Your task to perform on an android device: open sync settings in chrome Image 0: 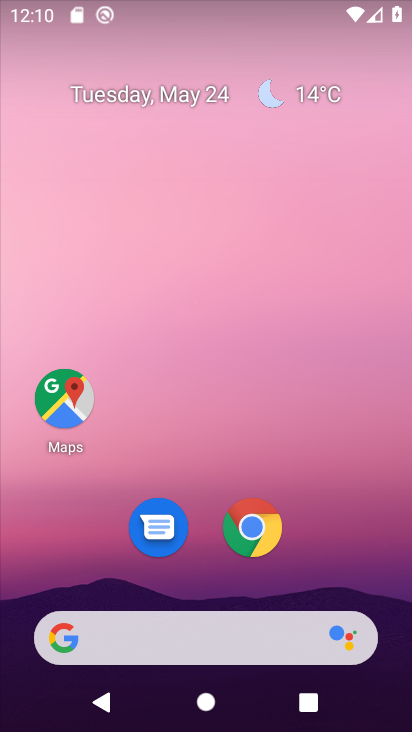
Step 0: click (261, 532)
Your task to perform on an android device: open sync settings in chrome Image 1: 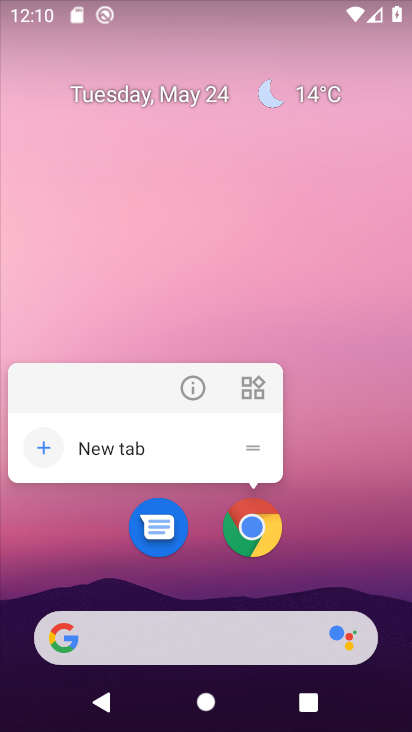
Step 1: click (261, 532)
Your task to perform on an android device: open sync settings in chrome Image 2: 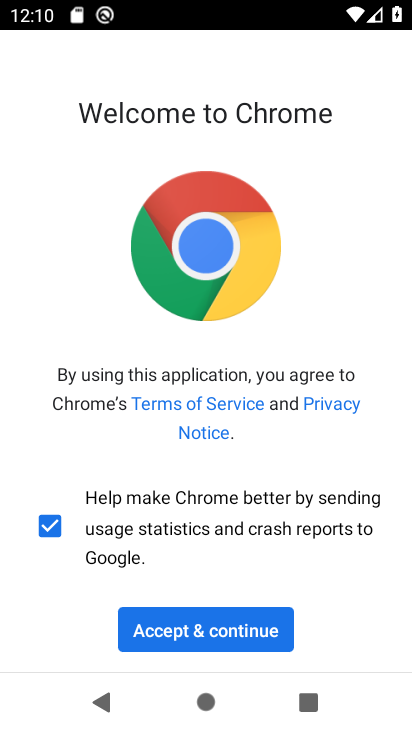
Step 2: click (248, 611)
Your task to perform on an android device: open sync settings in chrome Image 3: 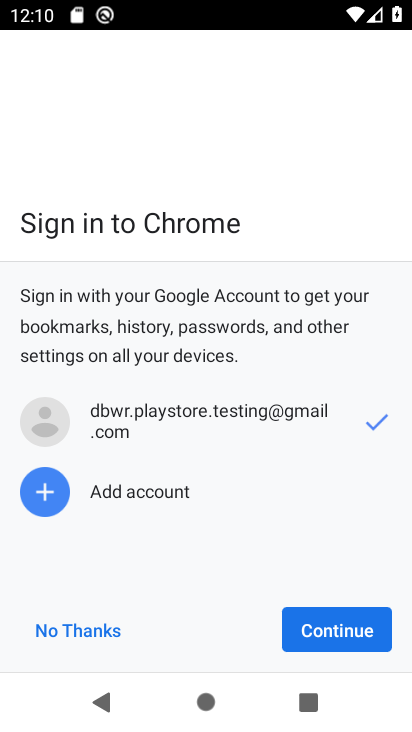
Step 3: click (313, 632)
Your task to perform on an android device: open sync settings in chrome Image 4: 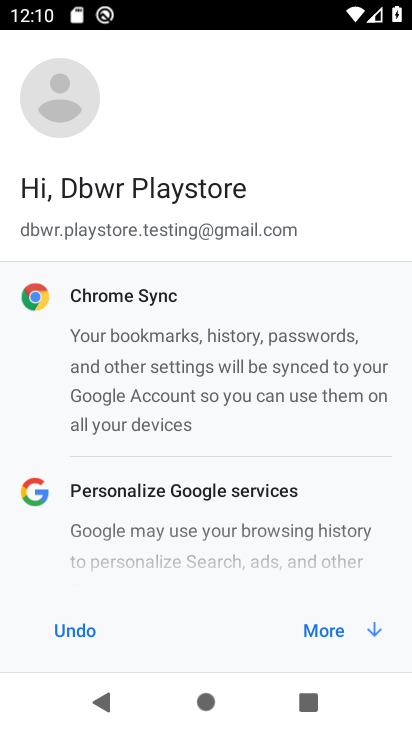
Step 4: click (313, 632)
Your task to perform on an android device: open sync settings in chrome Image 5: 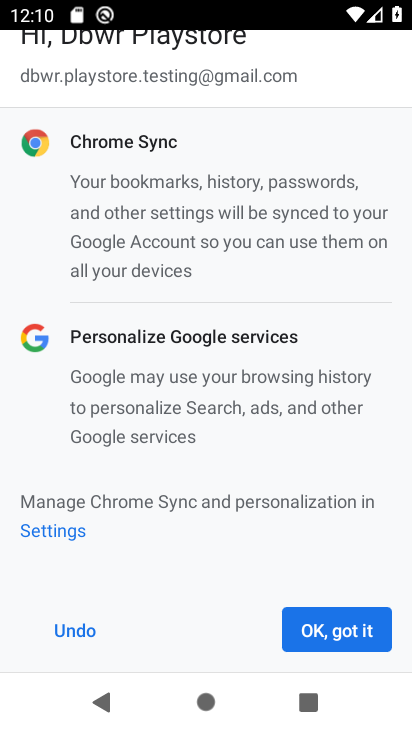
Step 5: click (313, 632)
Your task to perform on an android device: open sync settings in chrome Image 6: 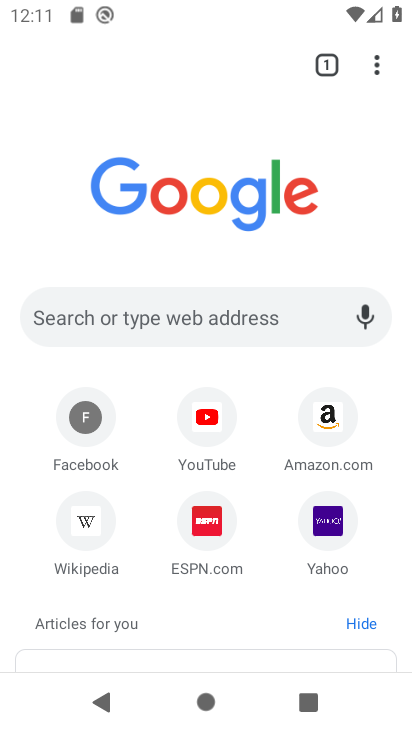
Step 6: click (377, 62)
Your task to perform on an android device: open sync settings in chrome Image 7: 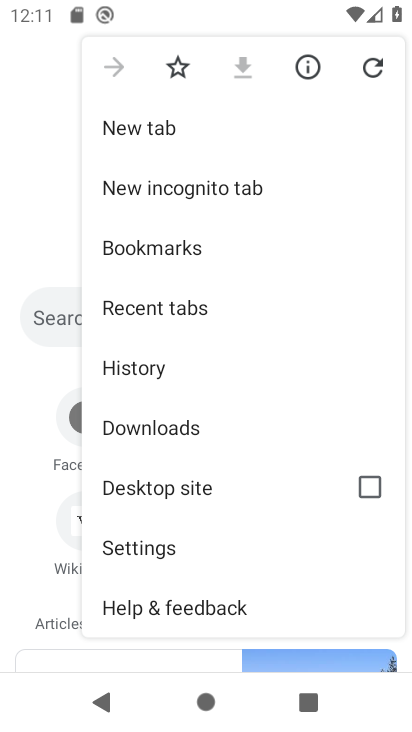
Step 7: click (216, 552)
Your task to perform on an android device: open sync settings in chrome Image 8: 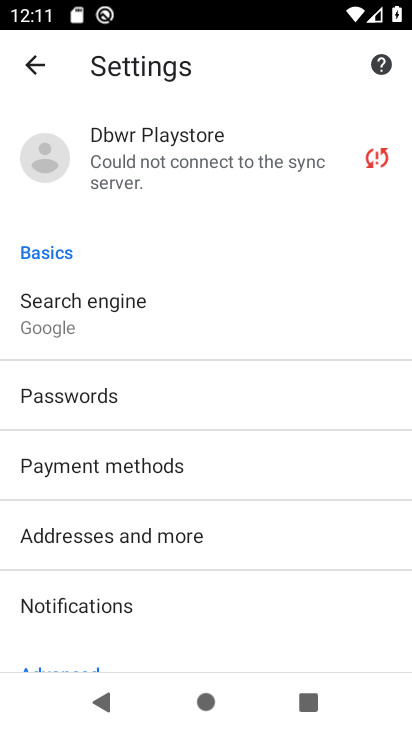
Step 8: click (173, 126)
Your task to perform on an android device: open sync settings in chrome Image 9: 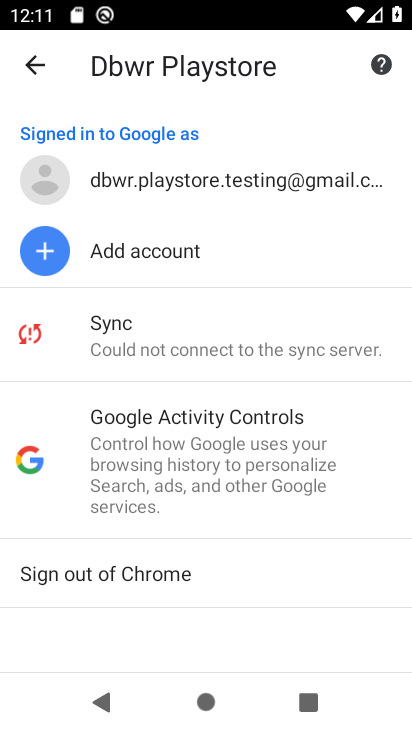
Step 9: click (196, 341)
Your task to perform on an android device: open sync settings in chrome Image 10: 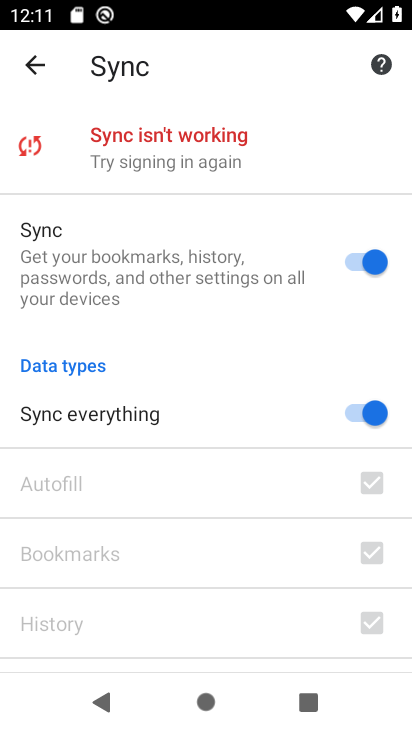
Step 10: task complete